Your task to perform on an android device: What's the news about the US stock market? Image 0: 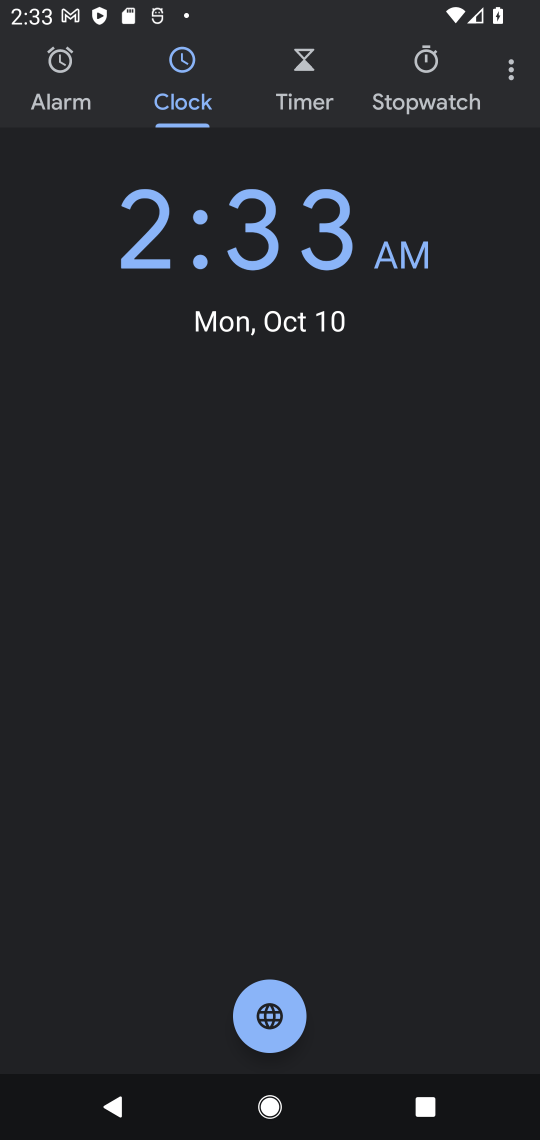
Step 0: press home button
Your task to perform on an android device: What's the news about the US stock market? Image 1: 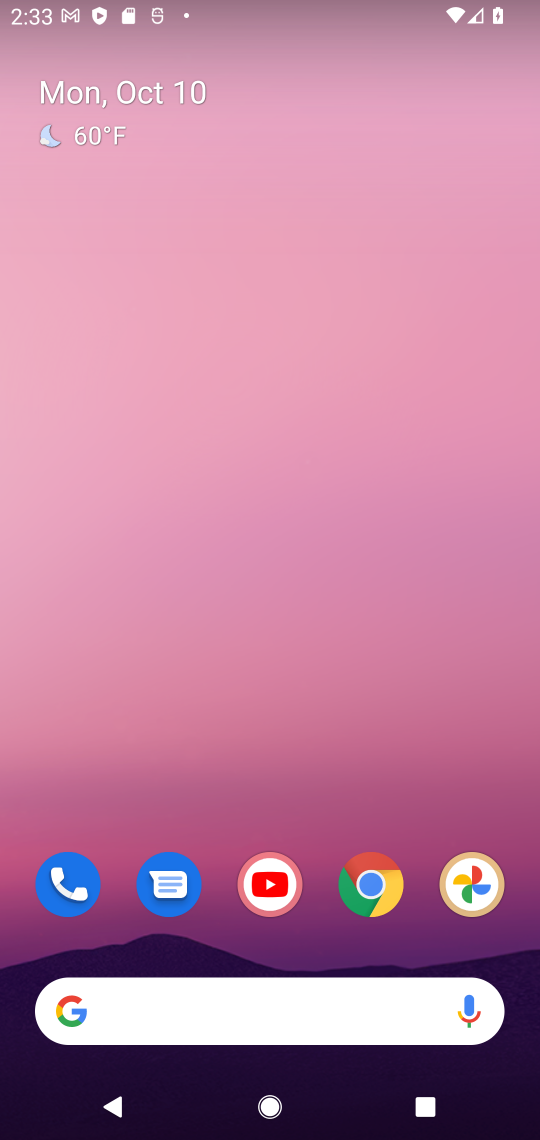
Step 1: click (371, 887)
Your task to perform on an android device: What's the news about the US stock market? Image 2: 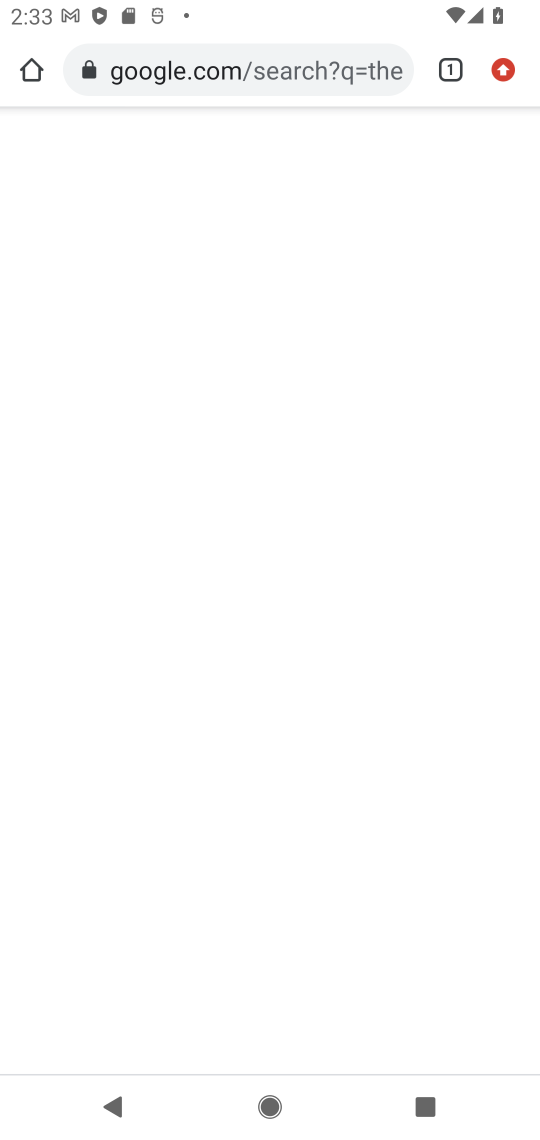
Step 2: click (179, 74)
Your task to perform on an android device: What's the news about the US stock market? Image 3: 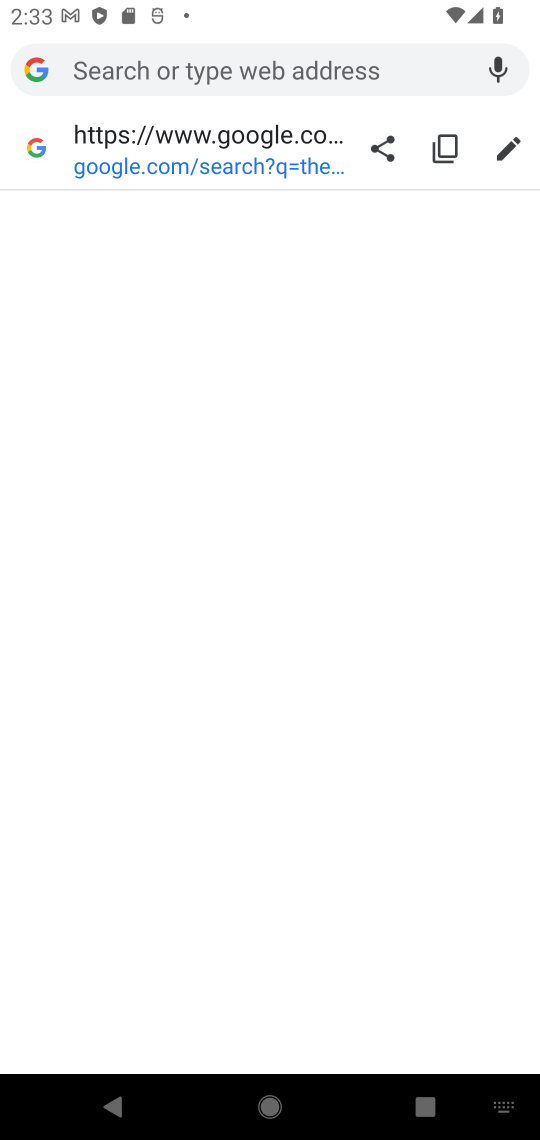
Step 3: type "What's the news about the US stock market"
Your task to perform on an android device: What's the news about the US stock market? Image 4: 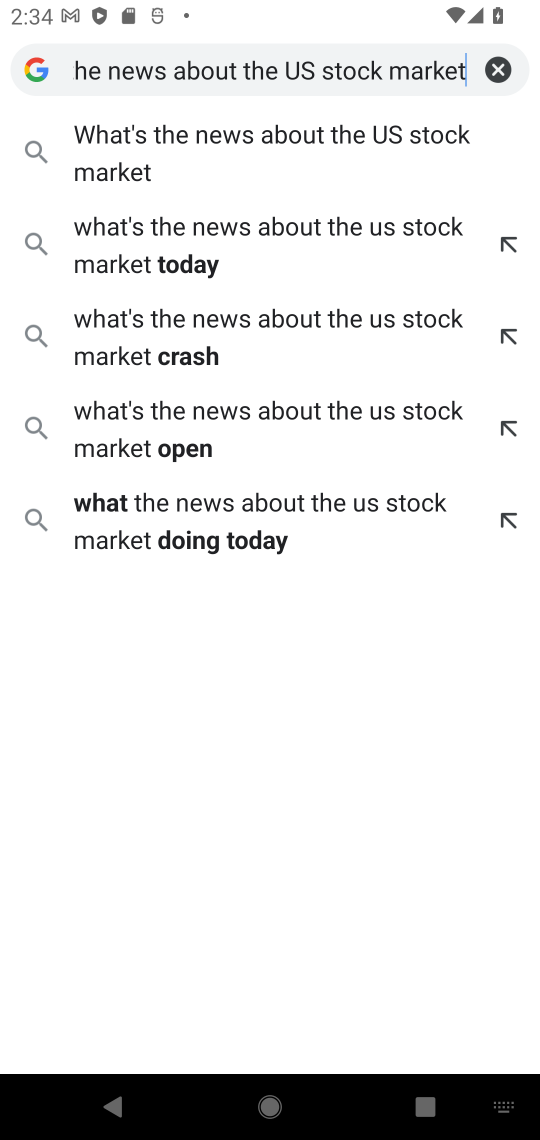
Step 4: click (213, 127)
Your task to perform on an android device: What's the news about the US stock market? Image 5: 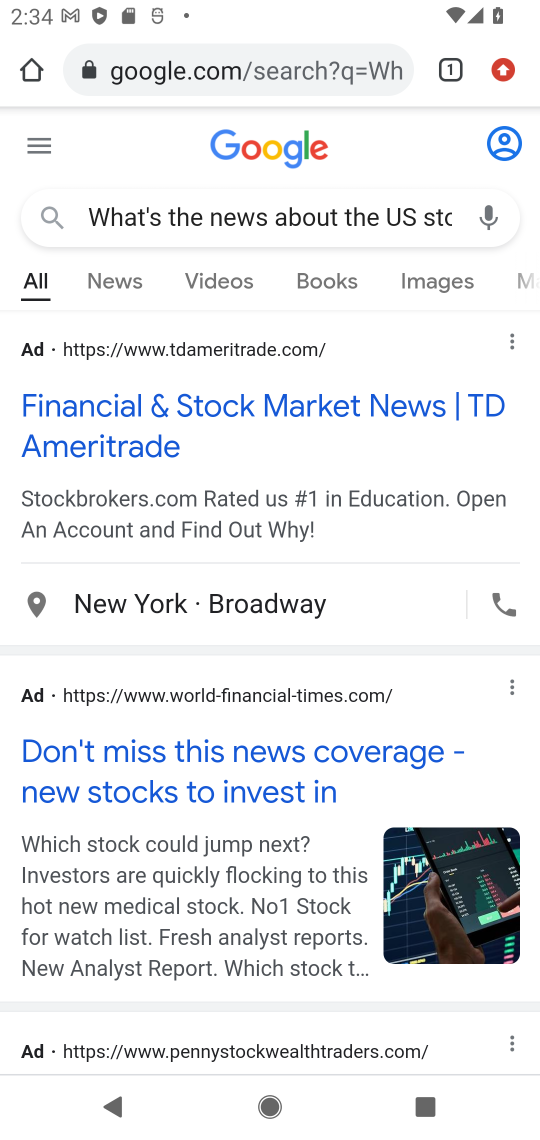
Step 5: click (129, 792)
Your task to perform on an android device: What's the news about the US stock market? Image 6: 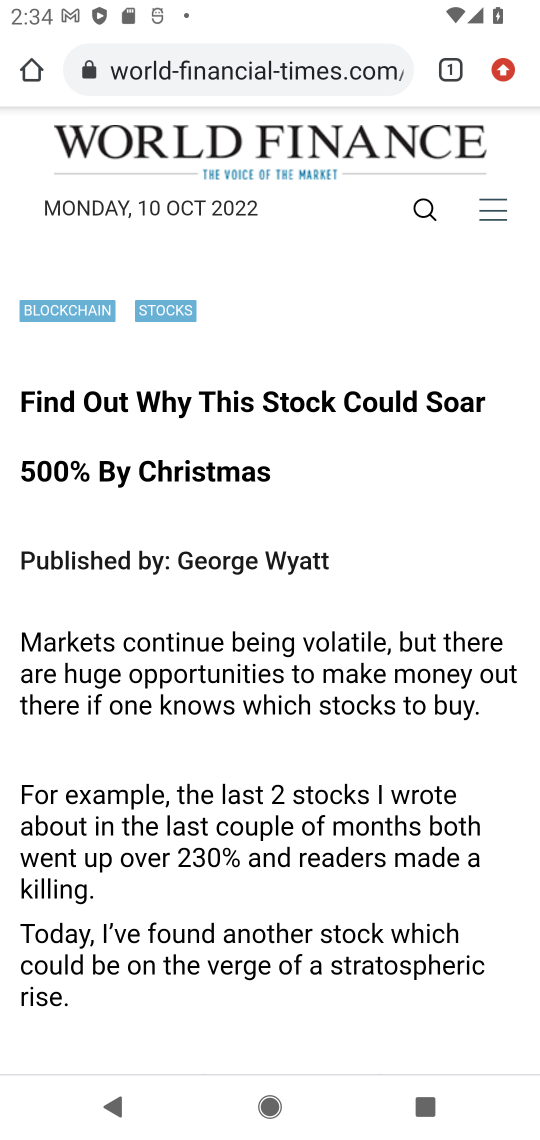
Step 6: task complete